Your task to perform on an android device: Find coffee shops on Maps Image 0: 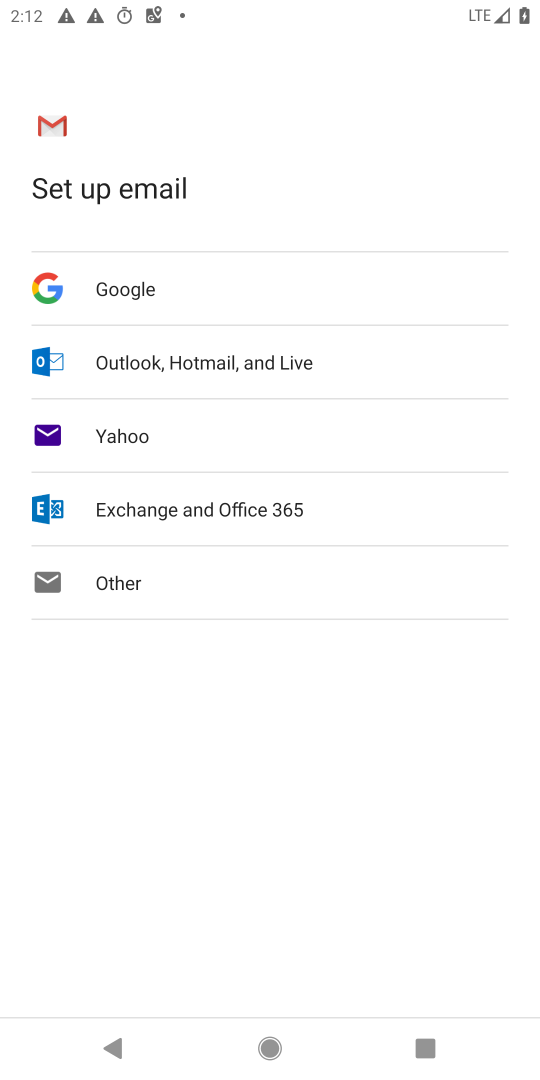
Step 0: press home button
Your task to perform on an android device: Find coffee shops on Maps Image 1: 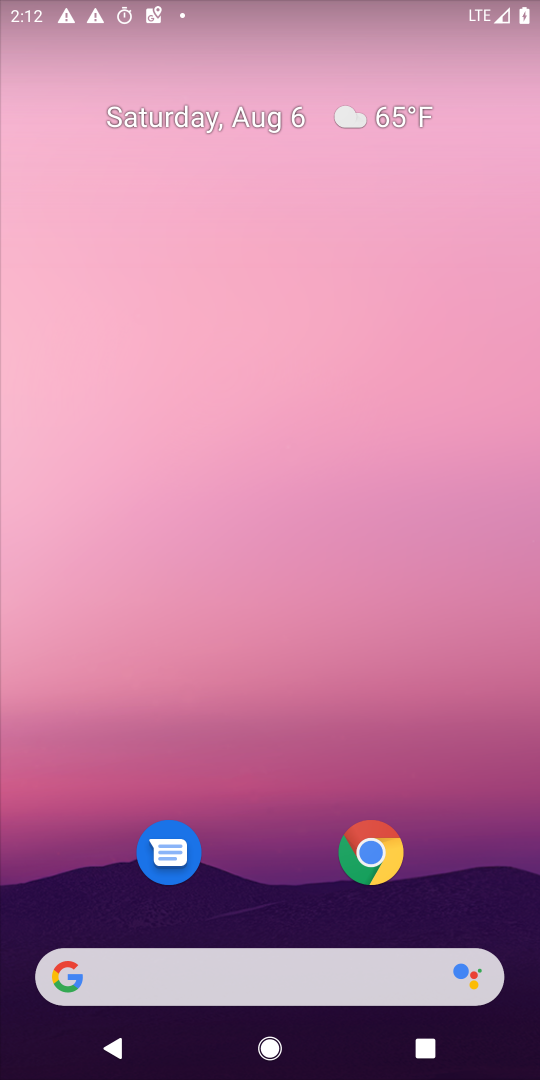
Step 1: drag from (310, 1005) to (320, 313)
Your task to perform on an android device: Find coffee shops on Maps Image 2: 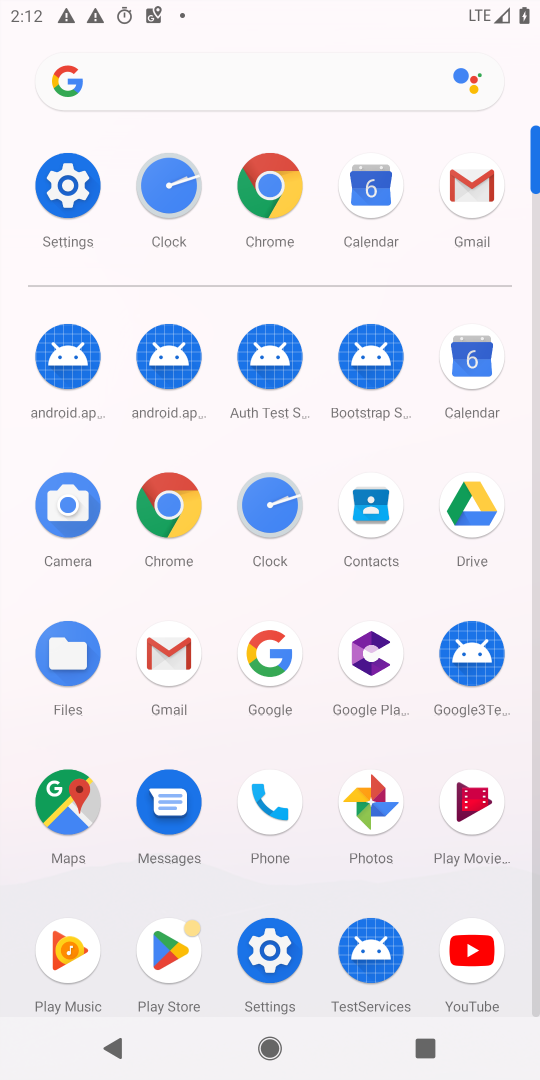
Step 2: click (61, 814)
Your task to perform on an android device: Find coffee shops on Maps Image 3: 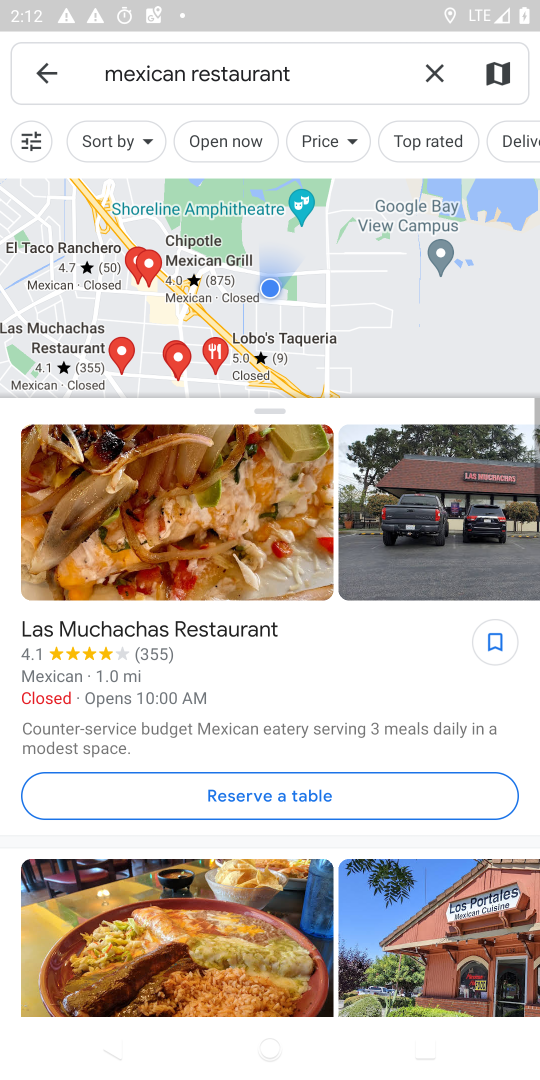
Step 3: click (35, 74)
Your task to perform on an android device: Find coffee shops on Maps Image 4: 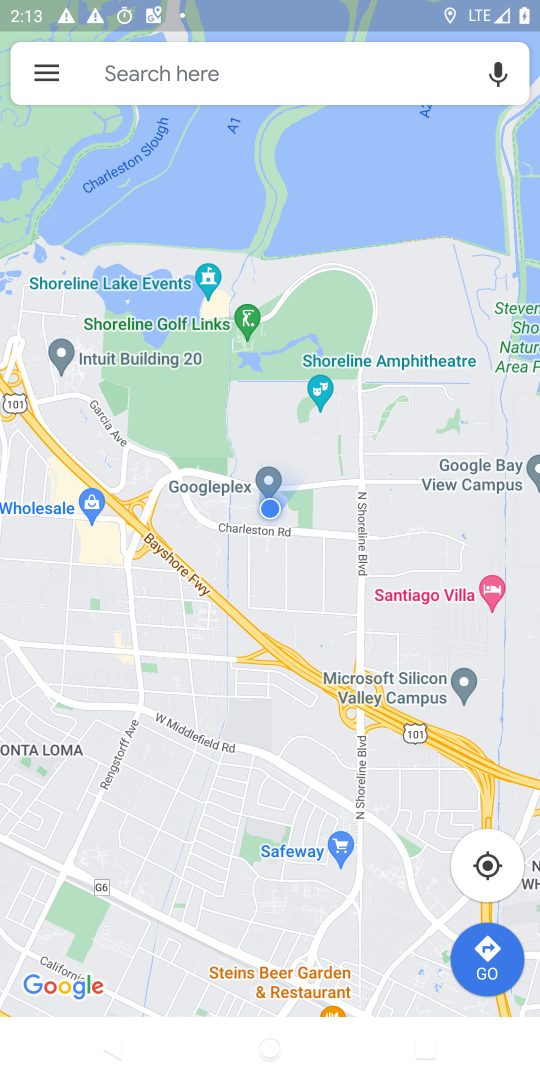
Step 4: click (155, 69)
Your task to perform on an android device: Find coffee shops on Maps Image 5: 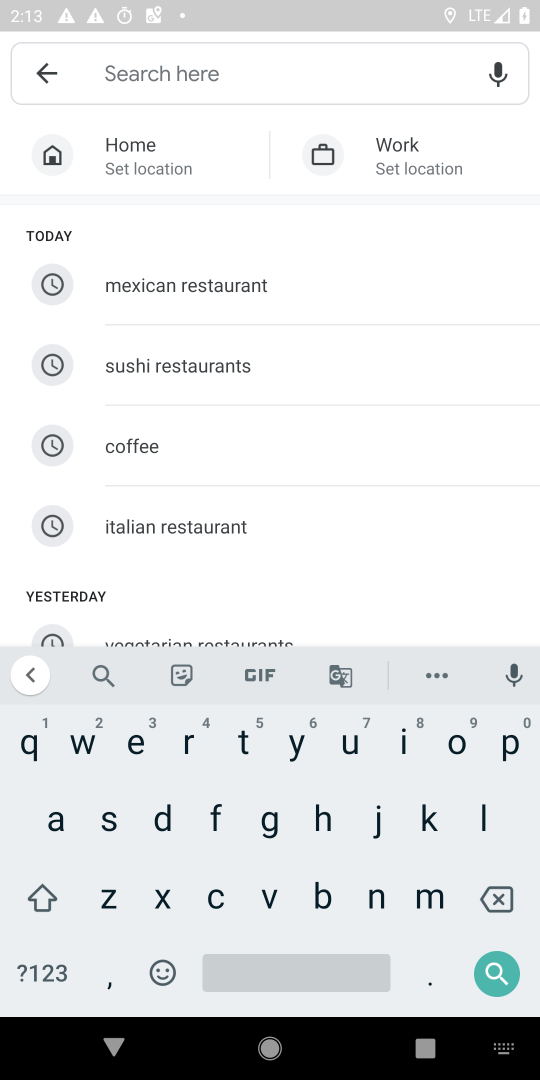
Step 5: click (151, 448)
Your task to perform on an android device: Find coffee shops on Maps Image 6: 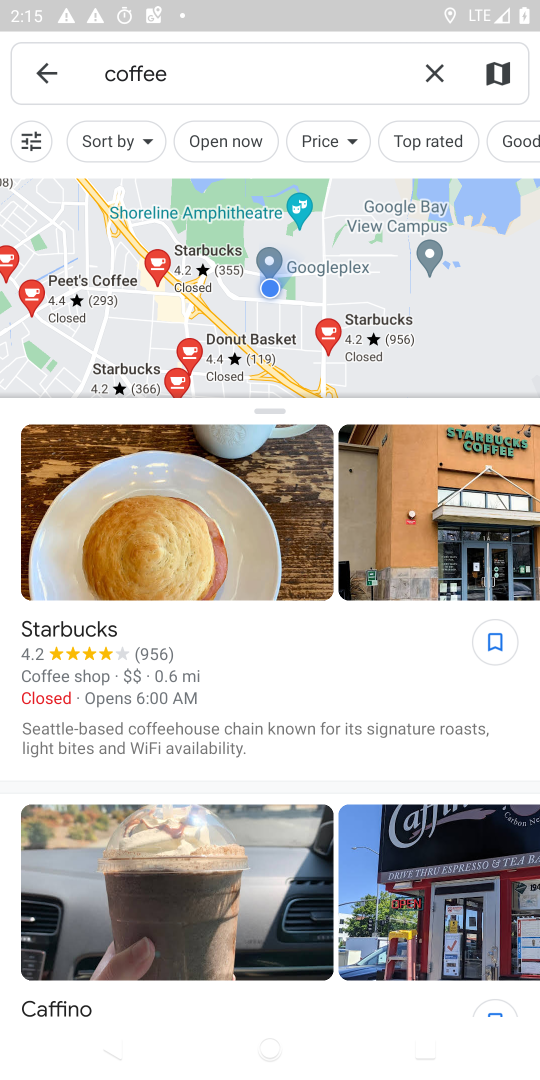
Step 6: task complete